Your task to perform on an android device: change text size in settings app Image 0: 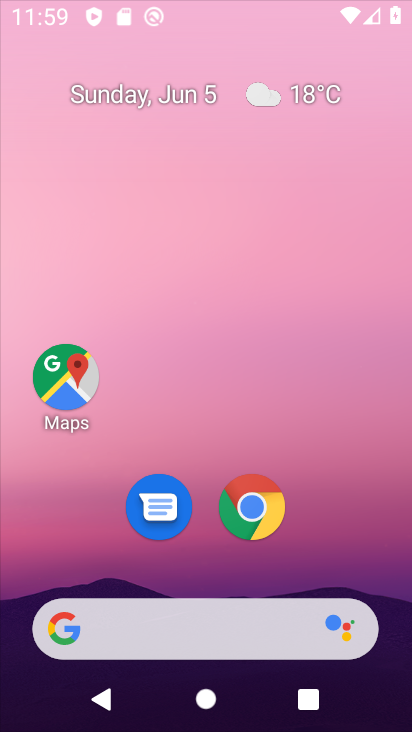
Step 0: click (333, 247)
Your task to perform on an android device: change text size in settings app Image 1: 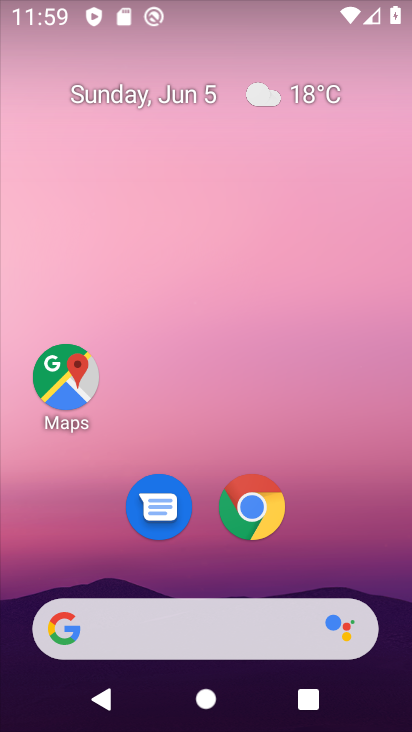
Step 1: drag from (298, 579) to (293, 10)
Your task to perform on an android device: change text size in settings app Image 2: 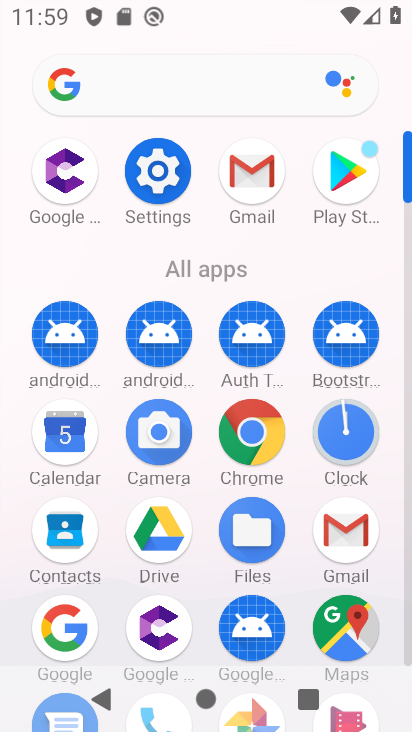
Step 2: click (156, 195)
Your task to perform on an android device: change text size in settings app Image 3: 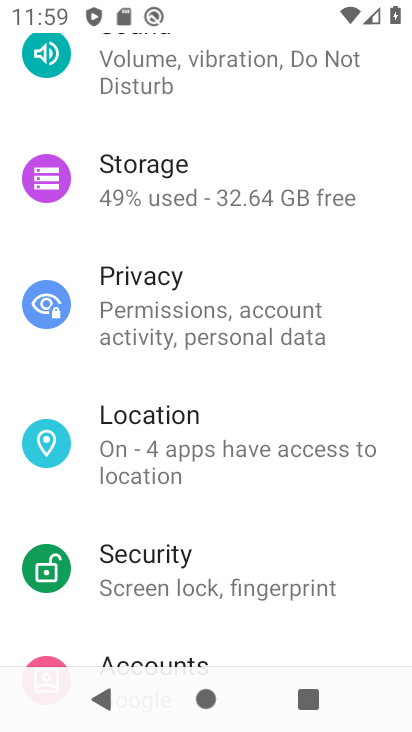
Step 3: drag from (235, 216) to (227, 722)
Your task to perform on an android device: change text size in settings app Image 4: 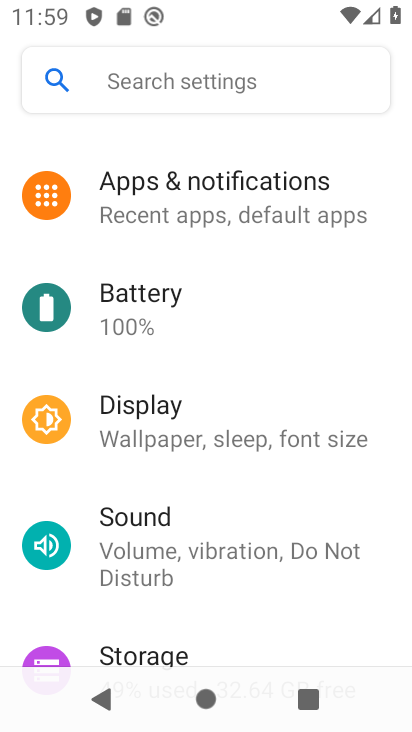
Step 4: click (160, 430)
Your task to perform on an android device: change text size in settings app Image 5: 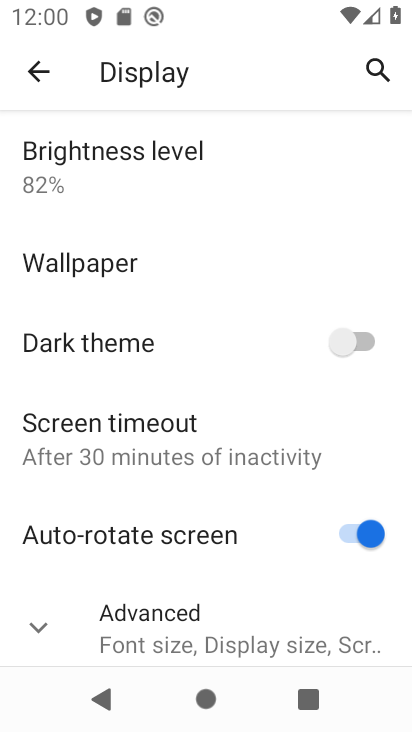
Step 5: drag from (173, 587) to (211, 400)
Your task to perform on an android device: change text size in settings app Image 6: 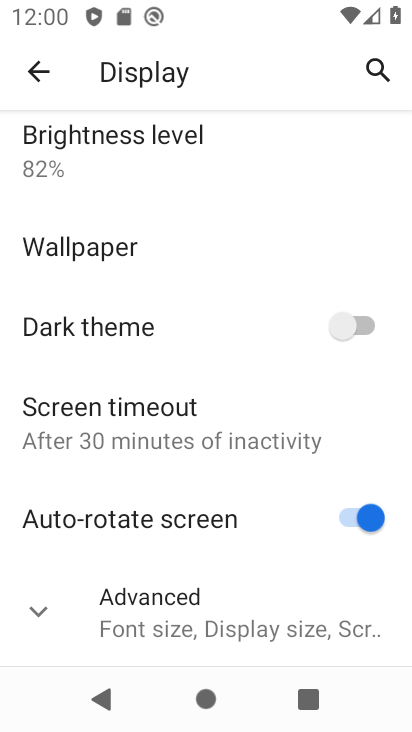
Step 6: click (163, 608)
Your task to perform on an android device: change text size in settings app Image 7: 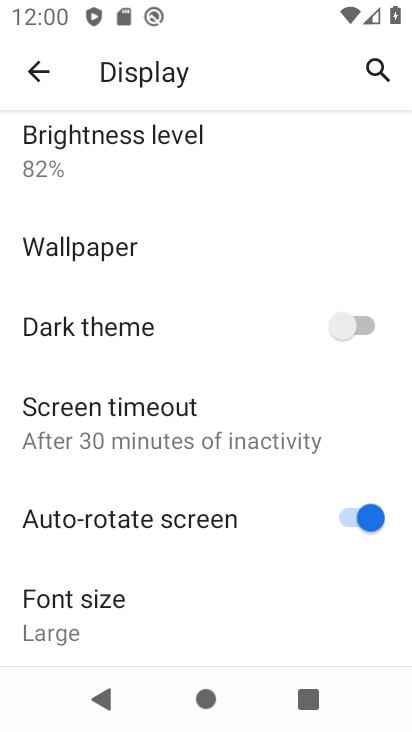
Step 7: drag from (108, 604) to (132, 465)
Your task to perform on an android device: change text size in settings app Image 8: 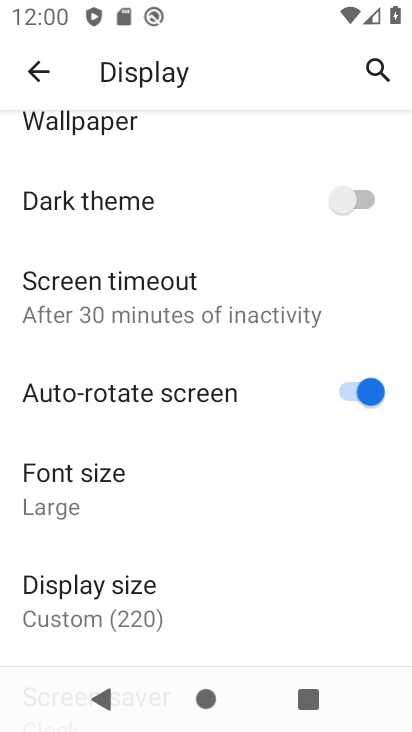
Step 8: click (78, 499)
Your task to perform on an android device: change text size in settings app Image 9: 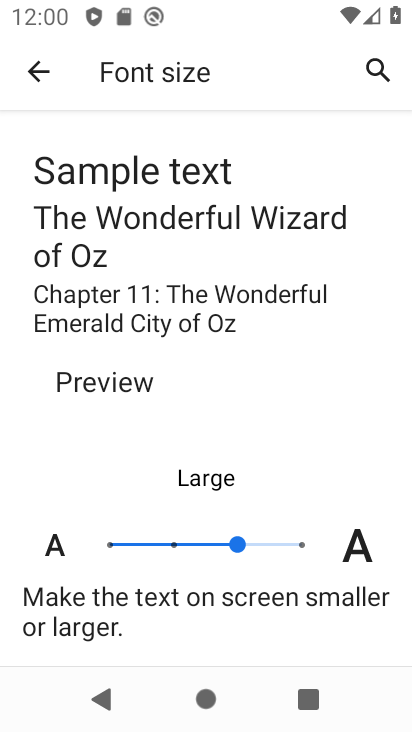
Step 9: click (73, 505)
Your task to perform on an android device: change text size in settings app Image 10: 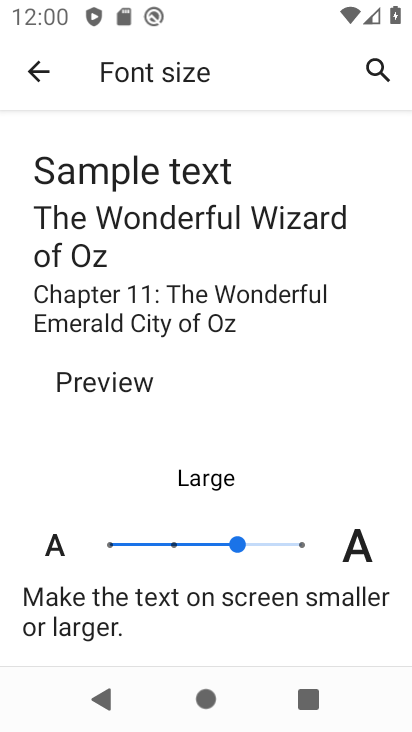
Step 10: click (115, 542)
Your task to perform on an android device: change text size in settings app Image 11: 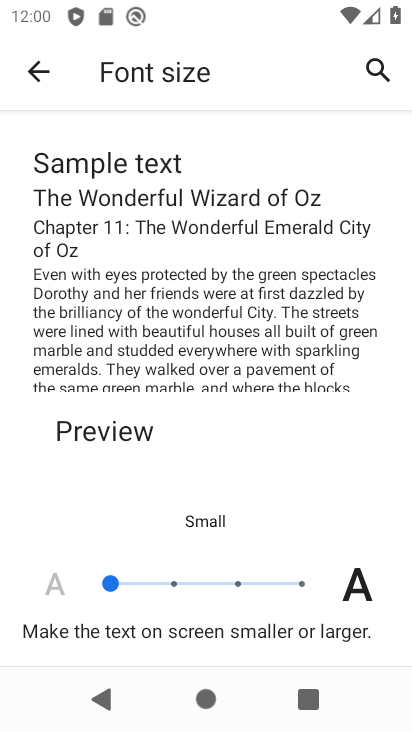
Step 11: task complete